Your task to perform on an android device: turn smart compose on in the gmail app Image 0: 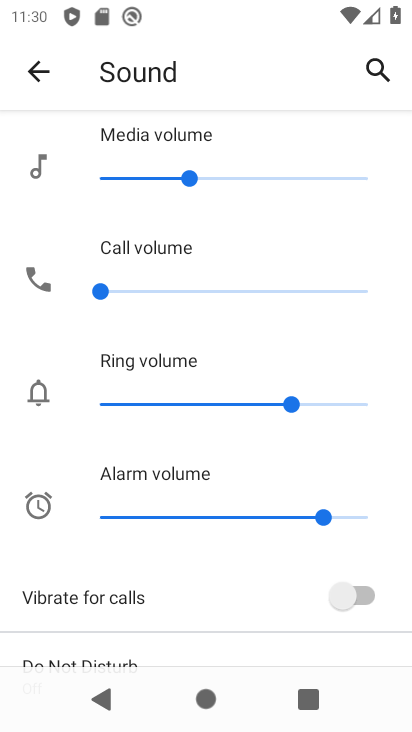
Step 0: press home button
Your task to perform on an android device: turn smart compose on in the gmail app Image 1: 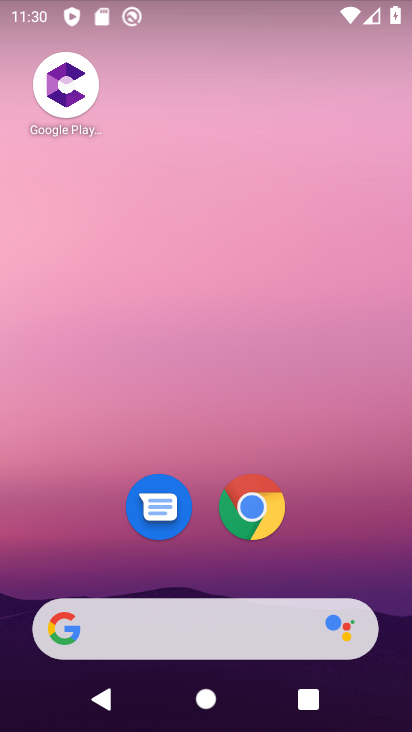
Step 1: drag from (346, 524) to (330, 70)
Your task to perform on an android device: turn smart compose on in the gmail app Image 2: 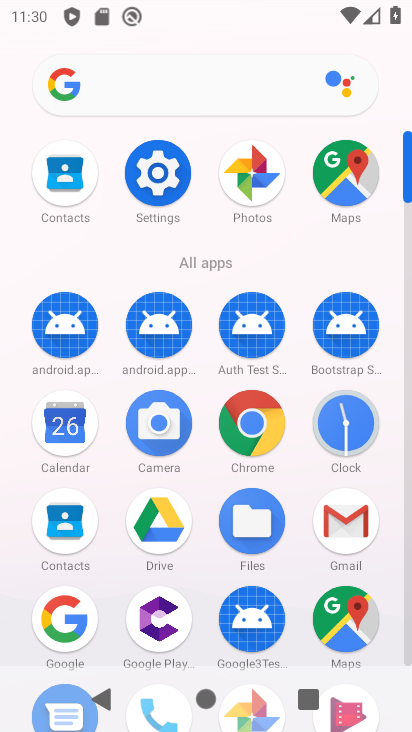
Step 2: click (348, 533)
Your task to perform on an android device: turn smart compose on in the gmail app Image 3: 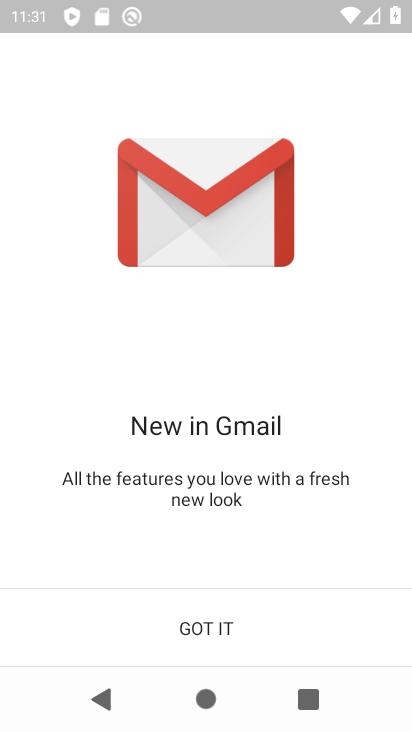
Step 3: click (226, 610)
Your task to perform on an android device: turn smart compose on in the gmail app Image 4: 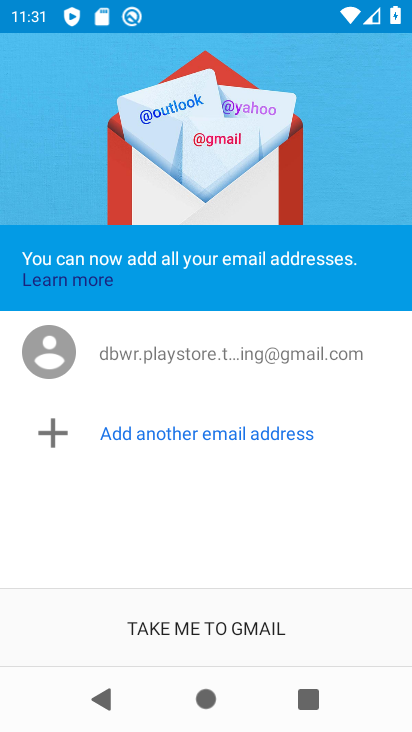
Step 4: click (225, 610)
Your task to perform on an android device: turn smart compose on in the gmail app Image 5: 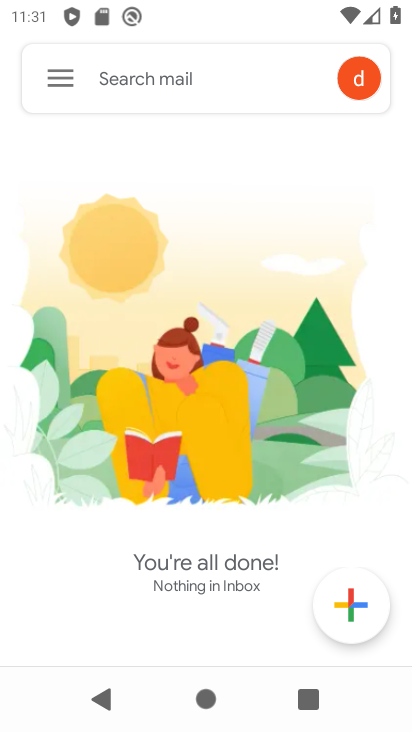
Step 5: click (54, 72)
Your task to perform on an android device: turn smart compose on in the gmail app Image 6: 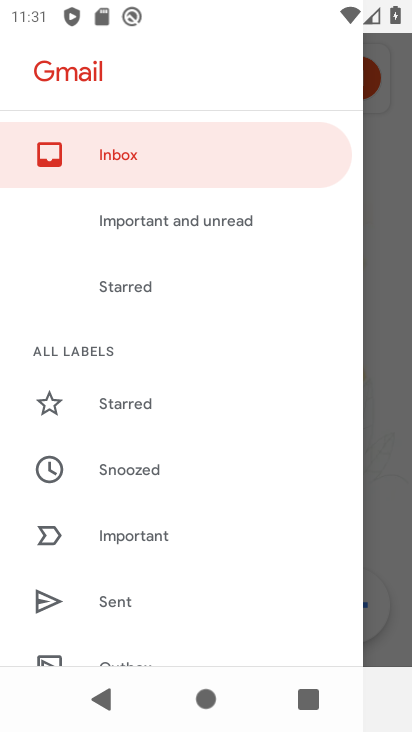
Step 6: drag from (184, 434) to (205, 76)
Your task to perform on an android device: turn smart compose on in the gmail app Image 7: 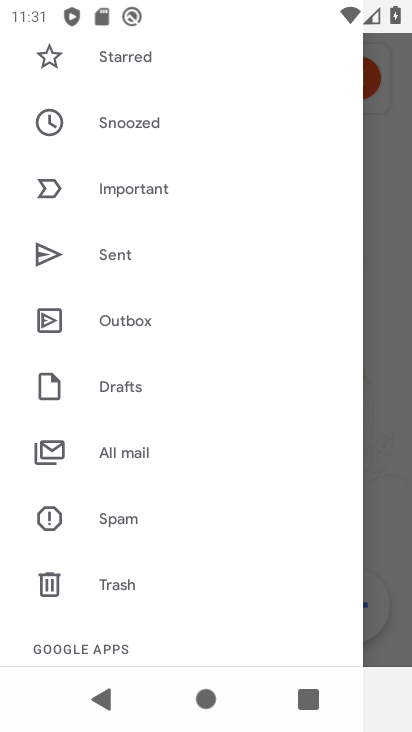
Step 7: drag from (148, 398) to (233, 103)
Your task to perform on an android device: turn smart compose on in the gmail app Image 8: 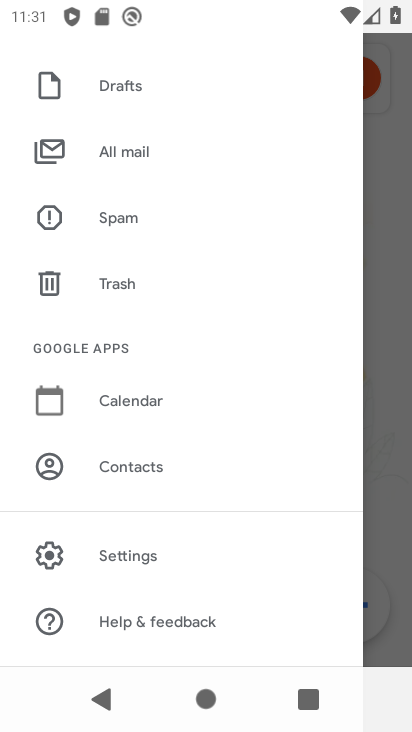
Step 8: click (128, 540)
Your task to perform on an android device: turn smart compose on in the gmail app Image 9: 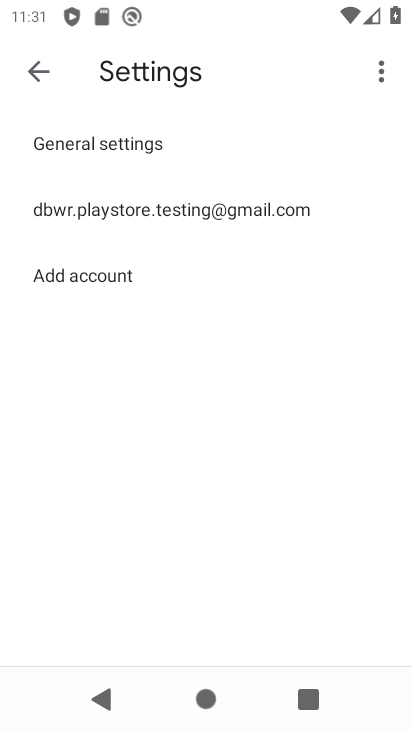
Step 9: click (222, 225)
Your task to perform on an android device: turn smart compose on in the gmail app Image 10: 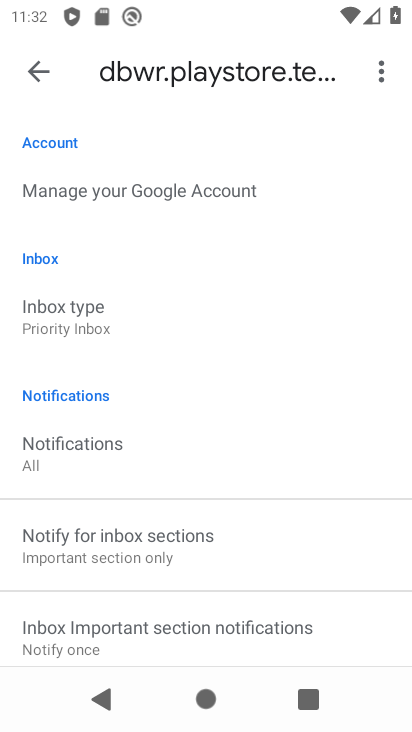
Step 10: task complete